Your task to perform on an android device: Search for vegetarian restaurants on Maps Image 0: 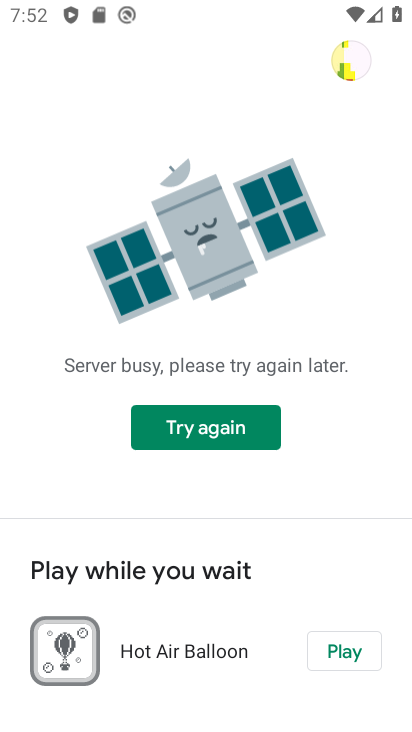
Step 0: press home button
Your task to perform on an android device: Search for vegetarian restaurants on Maps Image 1: 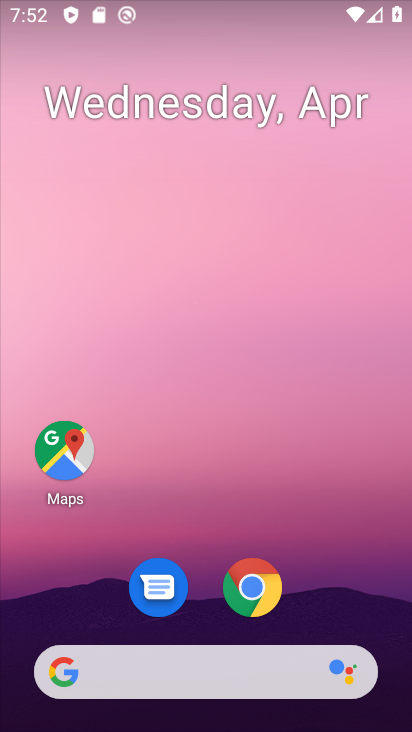
Step 1: click (67, 450)
Your task to perform on an android device: Search for vegetarian restaurants on Maps Image 2: 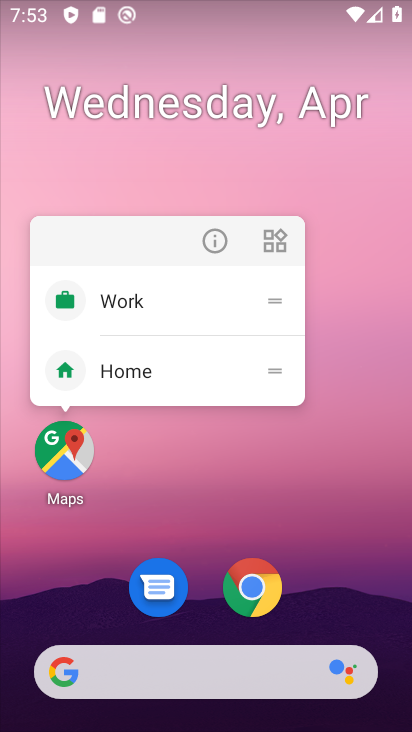
Step 2: click (64, 452)
Your task to perform on an android device: Search for vegetarian restaurants on Maps Image 3: 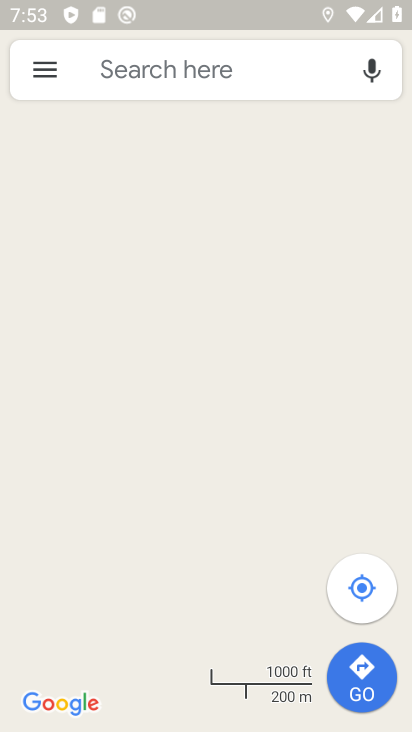
Step 3: click (196, 69)
Your task to perform on an android device: Search for vegetarian restaurants on Maps Image 4: 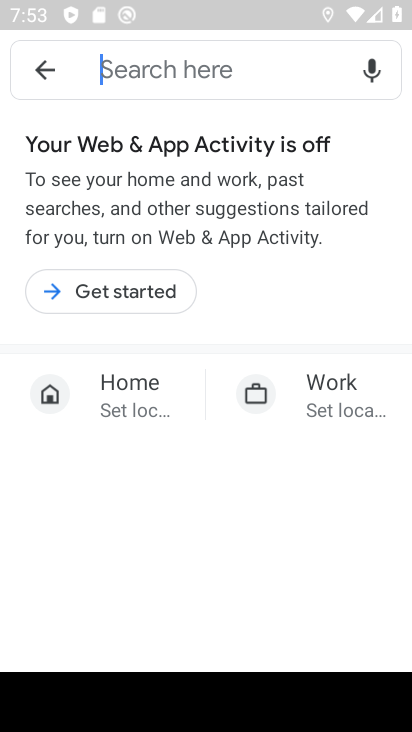
Step 4: click (224, 63)
Your task to perform on an android device: Search for vegetarian restaurants on Maps Image 5: 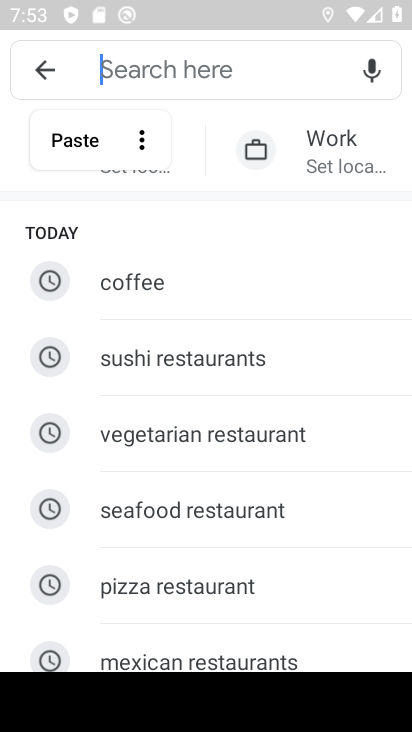
Step 5: type "vegetarian restaurants"
Your task to perform on an android device: Search for vegetarian restaurants on Maps Image 6: 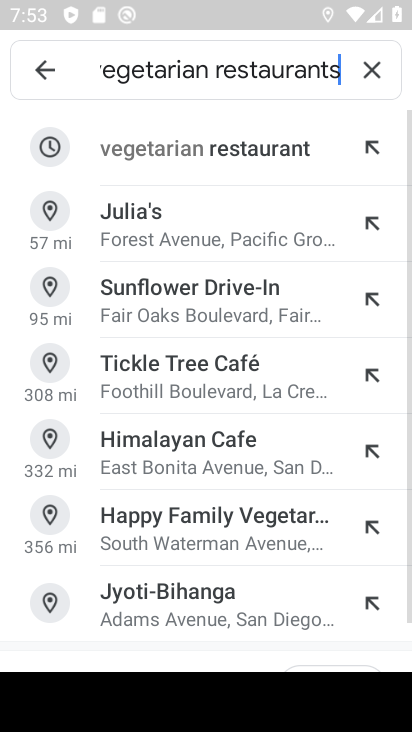
Step 6: click (263, 145)
Your task to perform on an android device: Search for vegetarian restaurants on Maps Image 7: 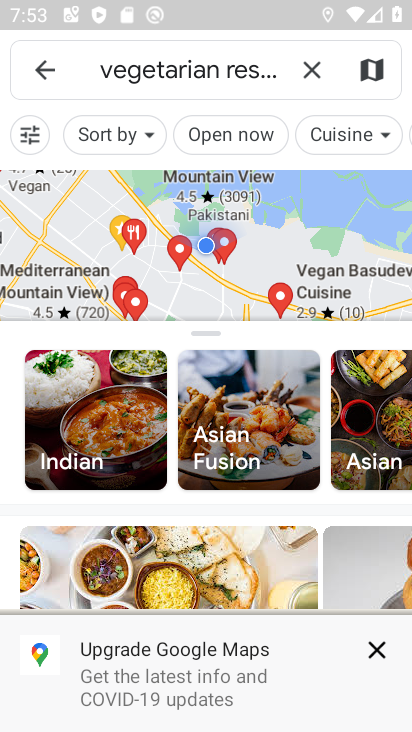
Step 7: task complete